Your task to perform on an android device: Open calendar and show me the third week of next month Image 0: 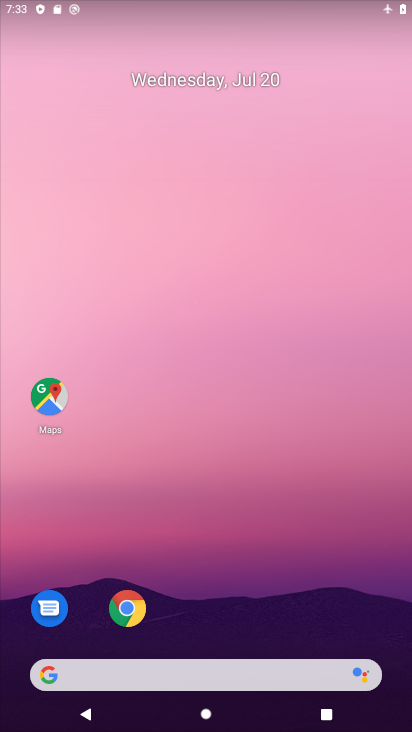
Step 0: drag from (266, 630) to (234, 103)
Your task to perform on an android device: Open calendar and show me the third week of next month Image 1: 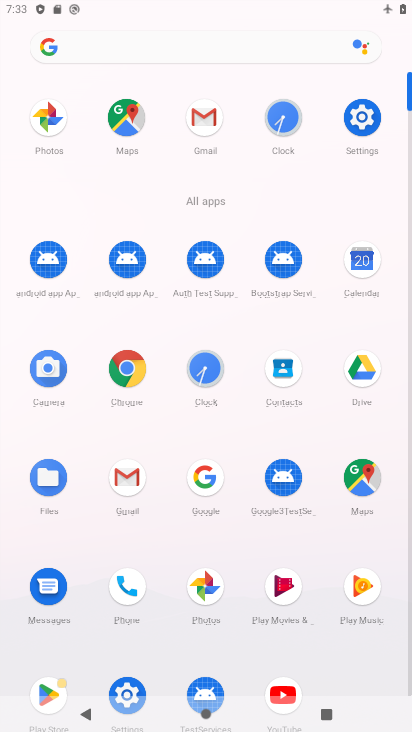
Step 1: click (362, 267)
Your task to perform on an android device: Open calendar and show me the third week of next month Image 2: 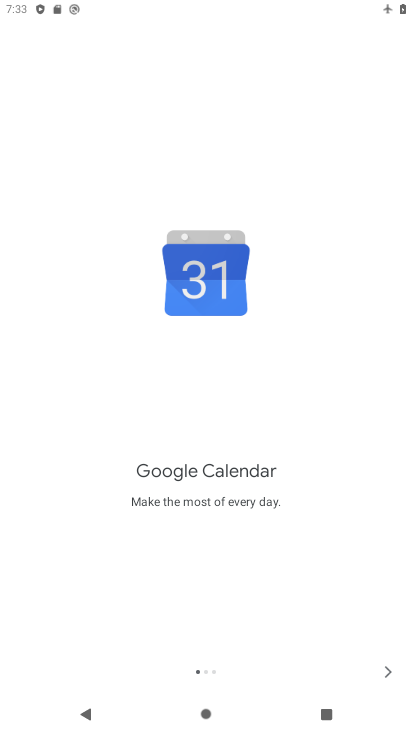
Step 2: click (388, 668)
Your task to perform on an android device: Open calendar and show me the third week of next month Image 3: 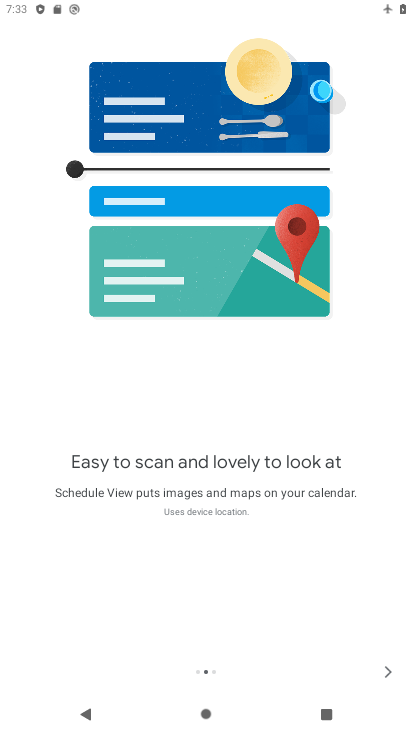
Step 3: click (388, 668)
Your task to perform on an android device: Open calendar and show me the third week of next month Image 4: 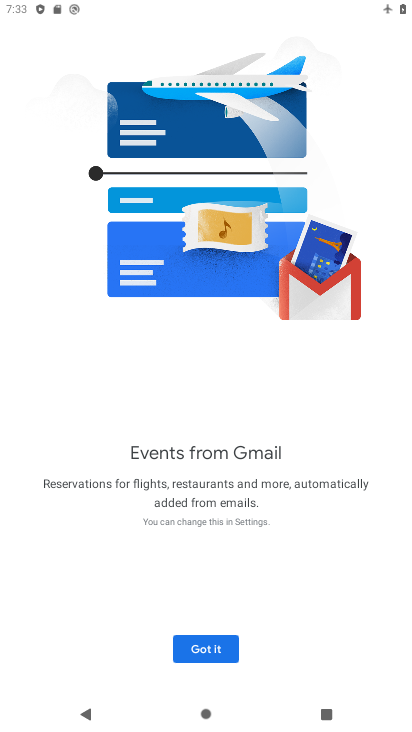
Step 4: click (198, 648)
Your task to perform on an android device: Open calendar and show me the third week of next month Image 5: 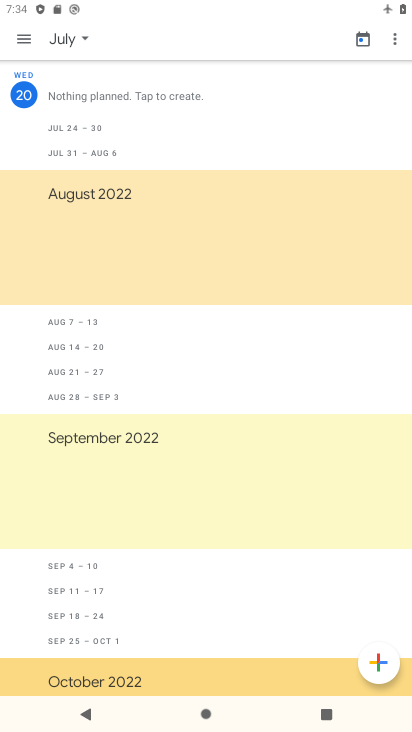
Step 5: click (64, 36)
Your task to perform on an android device: Open calendar and show me the third week of next month Image 6: 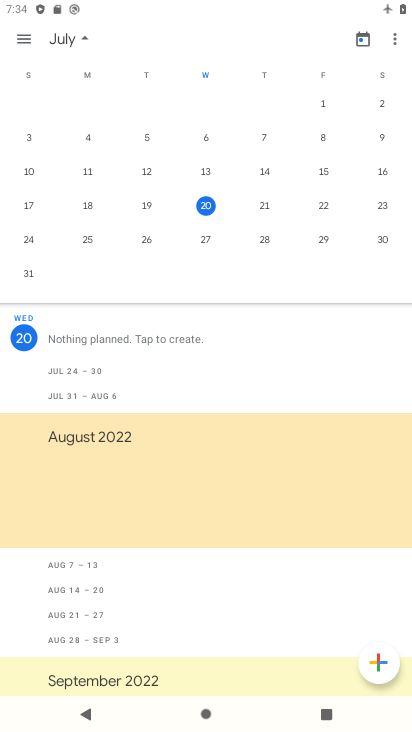
Step 6: drag from (386, 189) to (81, 165)
Your task to perform on an android device: Open calendar and show me the third week of next month Image 7: 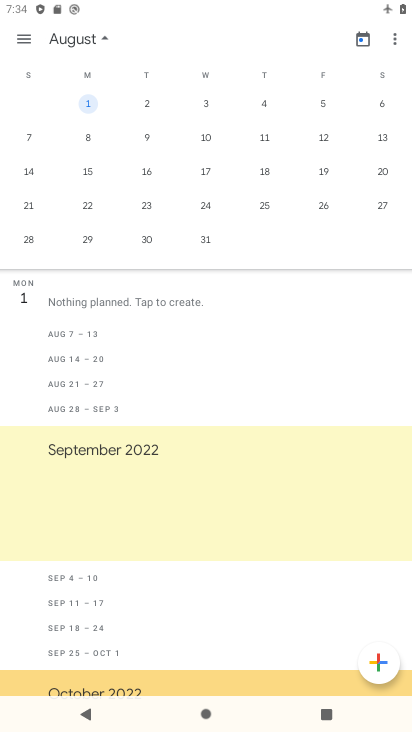
Step 7: click (144, 168)
Your task to perform on an android device: Open calendar and show me the third week of next month Image 8: 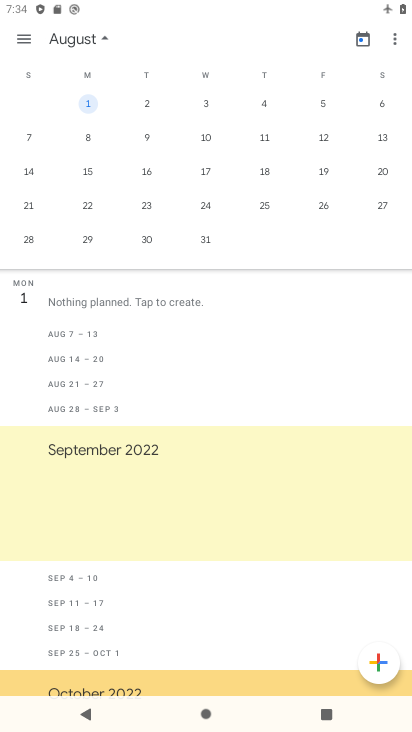
Step 8: click (270, 167)
Your task to perform on an android device: Open calendar and show me the third week of next month Image 9: 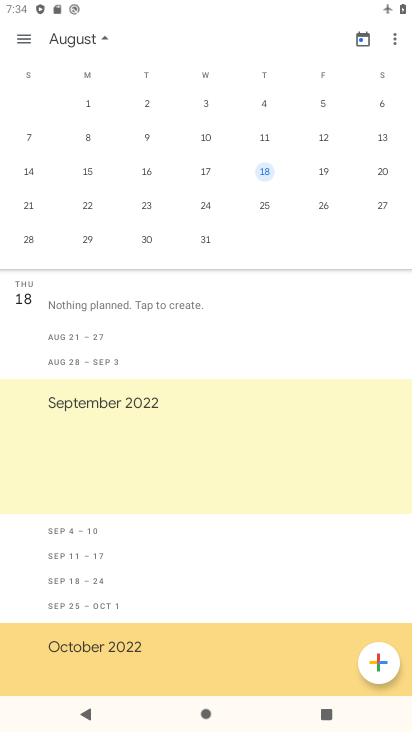
Step 9: click (22, 37)
Your task to perform on an android device: Open calendar and show me the third week of next month Image 10: 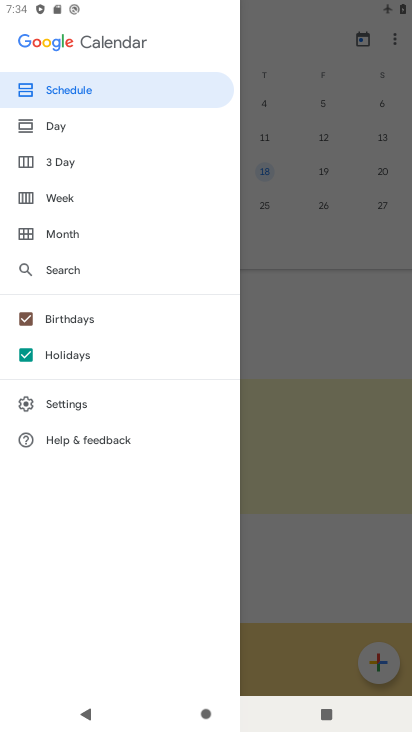
Step 10: click (60, 189)
Your task to perform on an android device: Open calendar and show me the third week of next month Image 11: 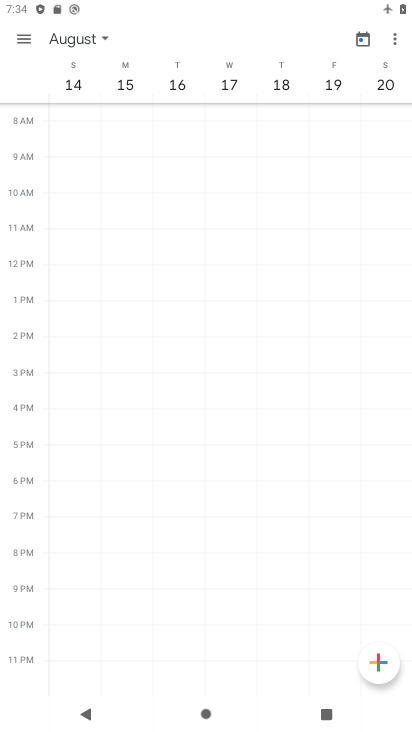
Step 11: task complete